Your task to perform on an android device: choose inbox layout in the gmail app Image 0: 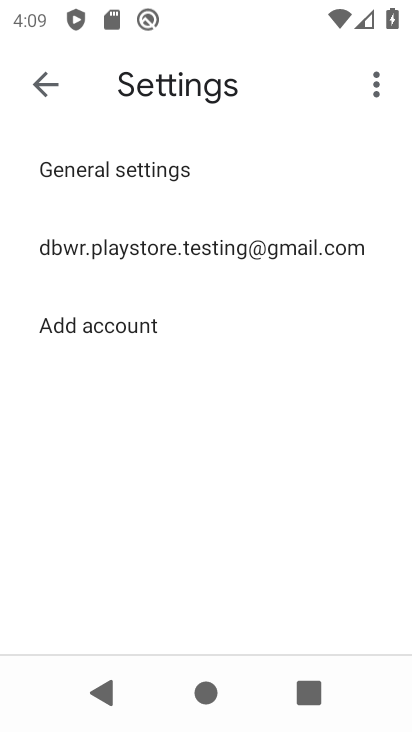
Step 0: press home button
Your task to perform on an android device: choose inbox layout in the gmail app Image 1: 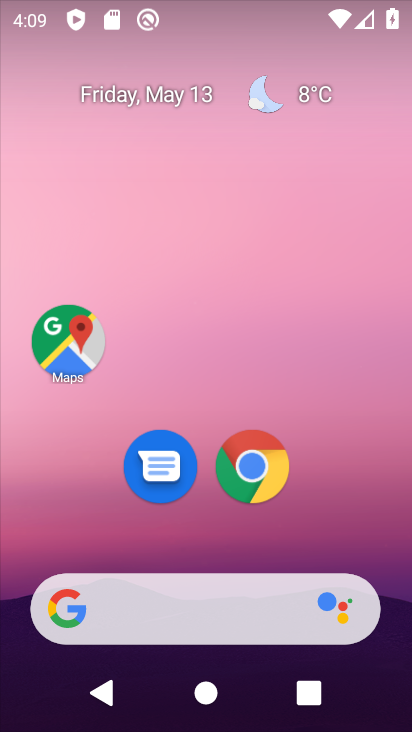
Step 1: drag from (395, 609) to (354, 141)
Your task to perform on an android device: choose inbox layout in the gmail app Image 2: 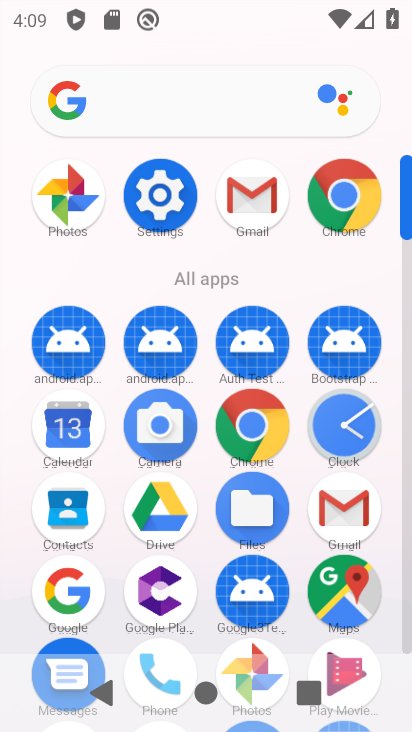
Step 2: click (344, 506)
Your task to perform on an android device: choose inbox layout in the gmail app Image 3: 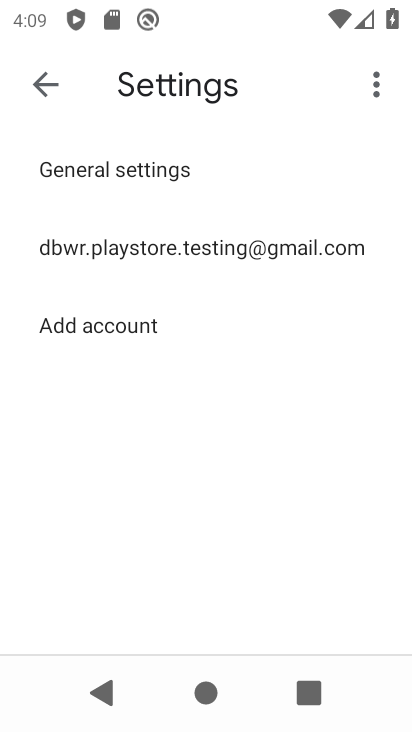
Step 3: click (153, 257)
Your task to perform on an android device: choose inbox layout in the gmail app Image 4: 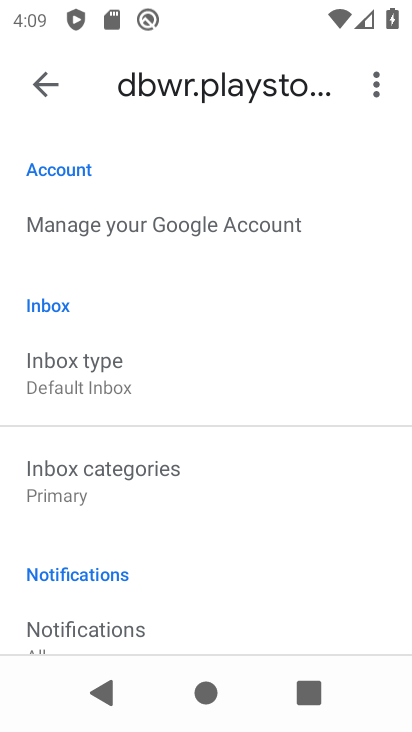
Step 4: click (73, 377)
Your task to perform on an android device: choose inbox layout in the gmail app Image 5: 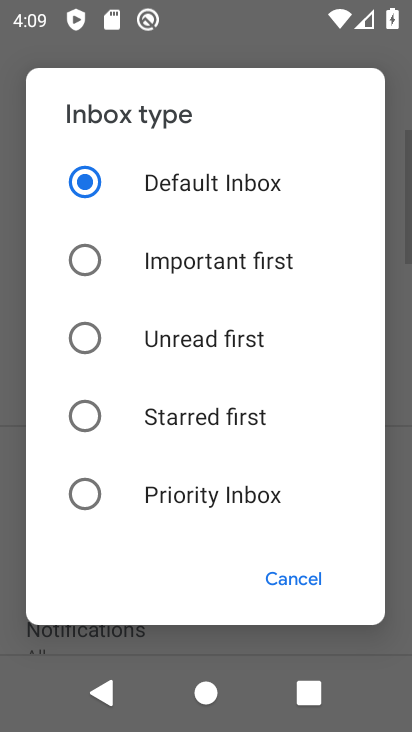
Step 5: click (92, 262)
Your task to perform on an android device: choose inbox layout in the gmail app Image 6: 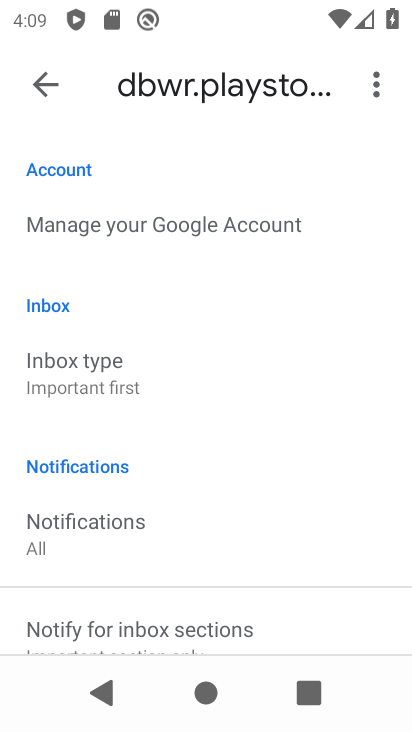
Step 6: task complete